Your task to perform on an android device: Go to Maps Image 0: 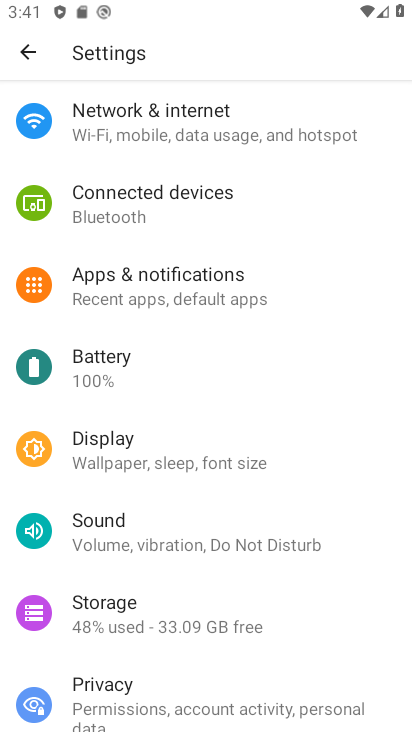
Step 0: press home button
Your task to perform on an android device: Go to Maps Image 1: 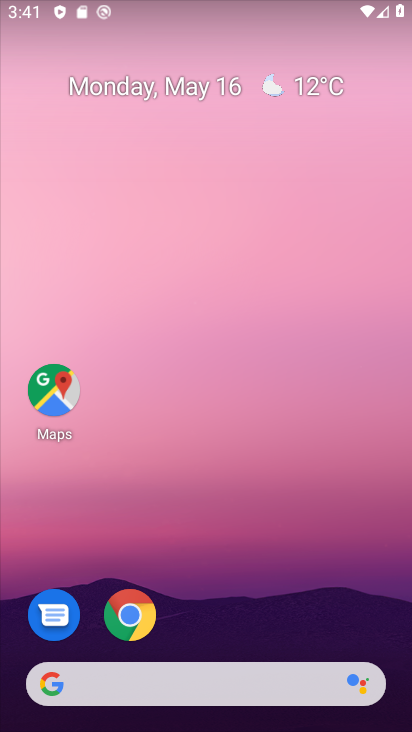
Step 1: drag from (224, 623) to (219, 220)
Your task to perform on an android device: Go to Maps Image 2: 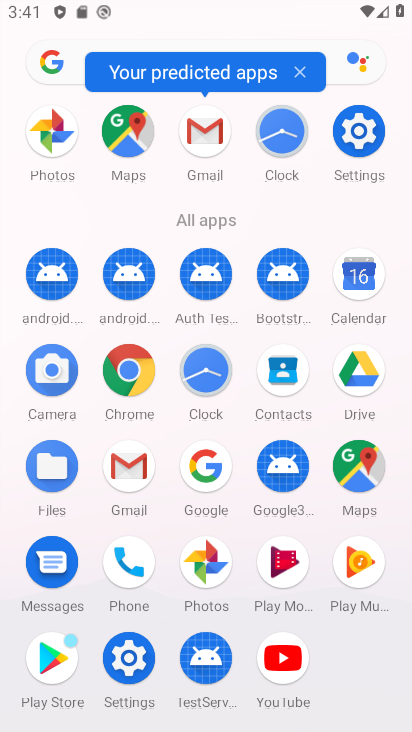
Step 2: click (354, 476)
Your task to perform on an android device: Go to Maps Image 3: 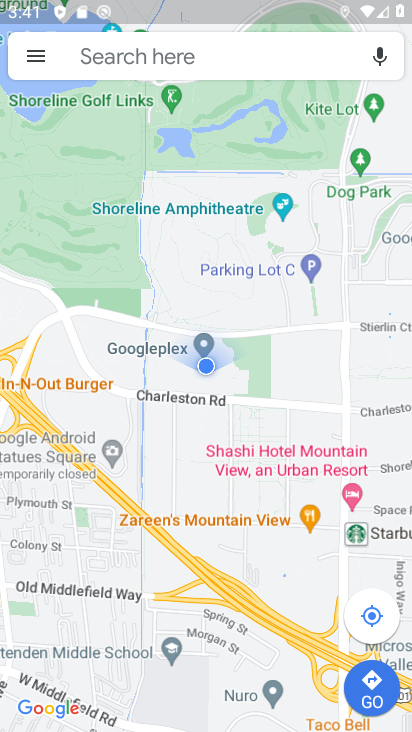
Step 3: task complete